Your task to perform on an android device: Go to sound settings Image 0: 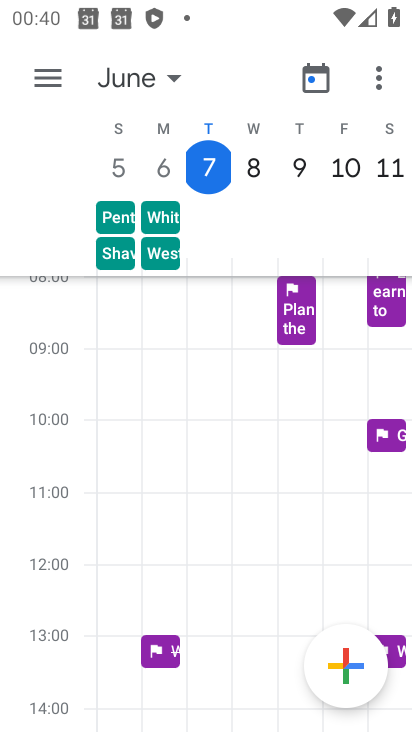
Step 0: press home button
Your task to perform on an android device: Go to sound settings Image 1: 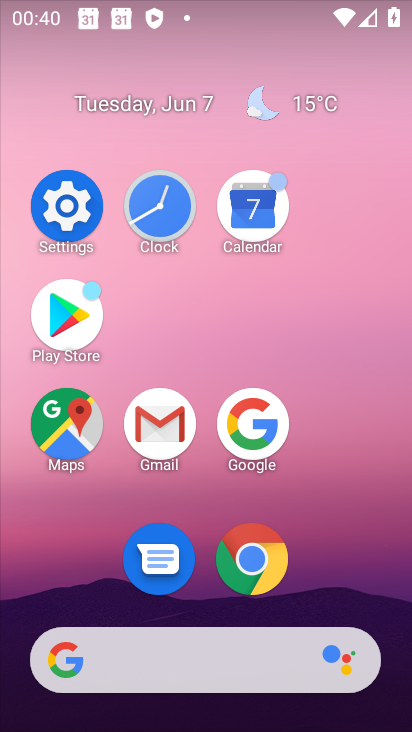
Step 1: click (74, 192)
Your task to perform on an android device: Go to sound settings Image 2: 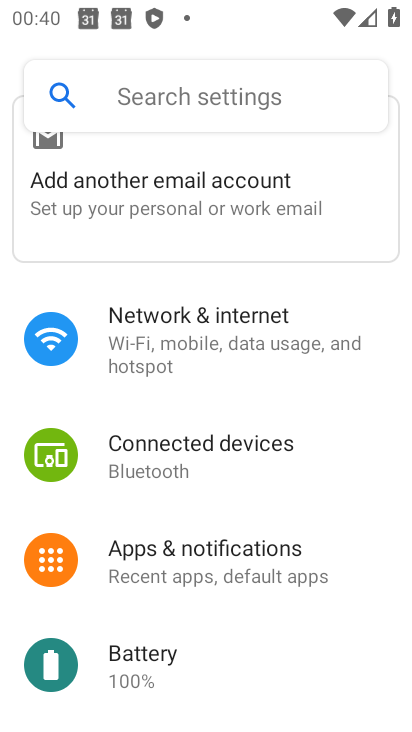
Step 2: drag from (271, 599) to (280, 189)
Your task to perform on an android device: Go to sound settings Image 3: 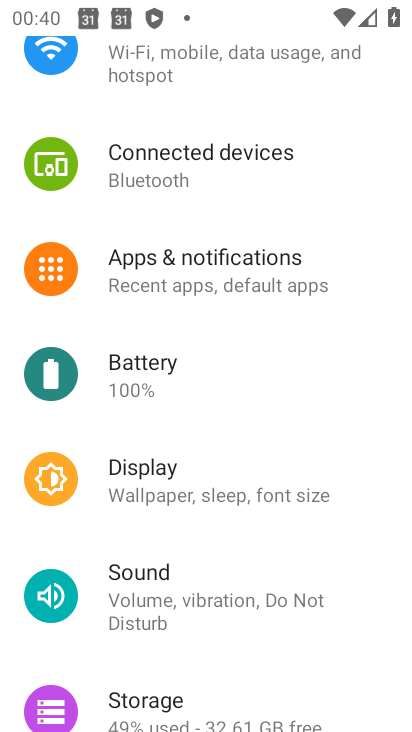
Step 3: click (253, 616)
Your task to perform on an android device: Go to sound settings Image 4: 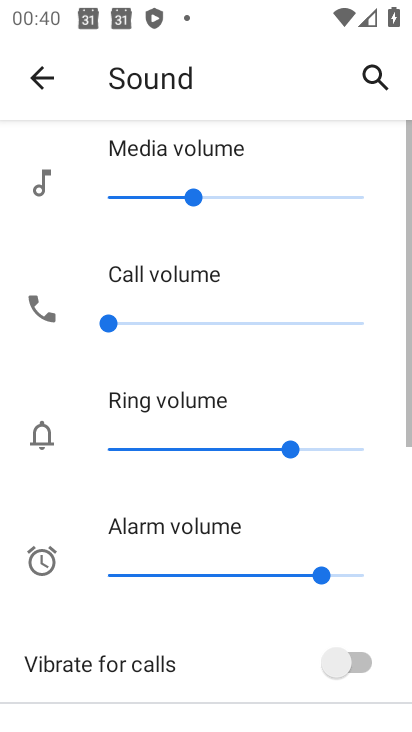
Step 4: task complete